Your task to perform on an android device: Open Yahoo.com Image 0: 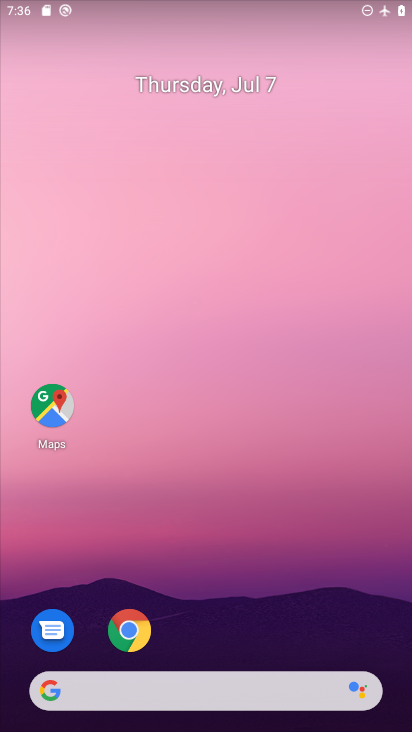
Step 0: click (128, 632)
Your task to perform on an android device: Open Yahoo.com Image 1: 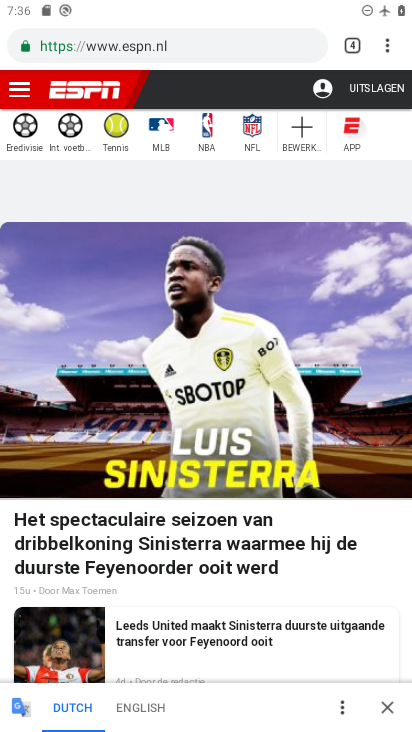
Step 1: click (387, 43)
Your task to perform on an android device: Open Yahoo.com Image 2: 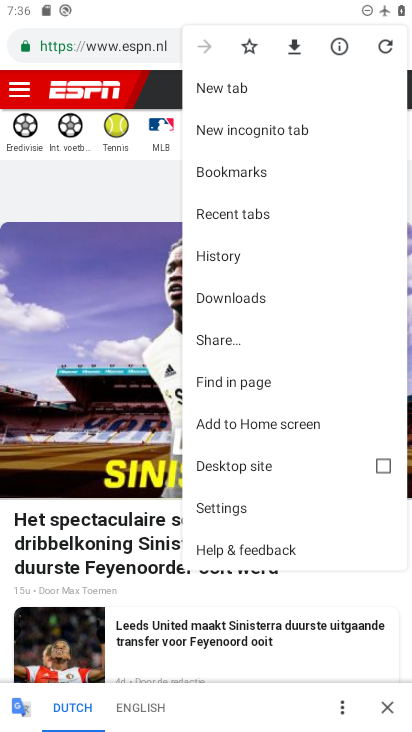
Step 2: click (242, 86)
Your task to perform on an android device: Open Yahoo.com Image 3: 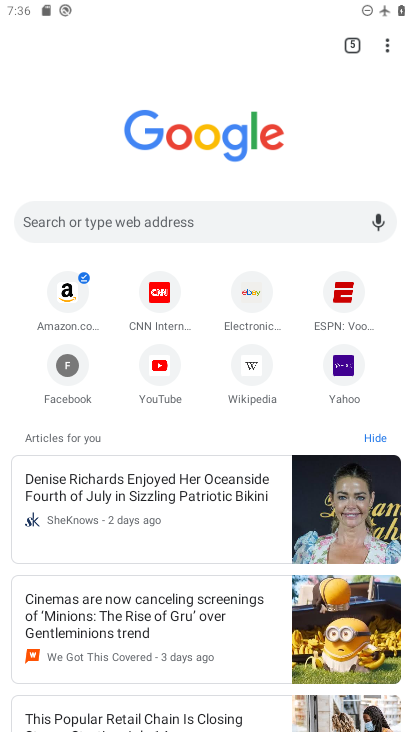
Step 3: click (345, 366)
Your task to perform on an android device: Open Yahoo.com Image 4: 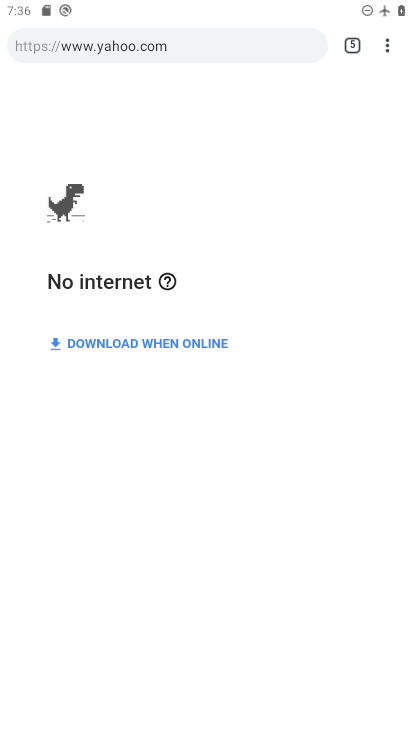
Step 4: task complete